Your task to perform on an android device: Search for pizza restaurants on Maps Image 0: 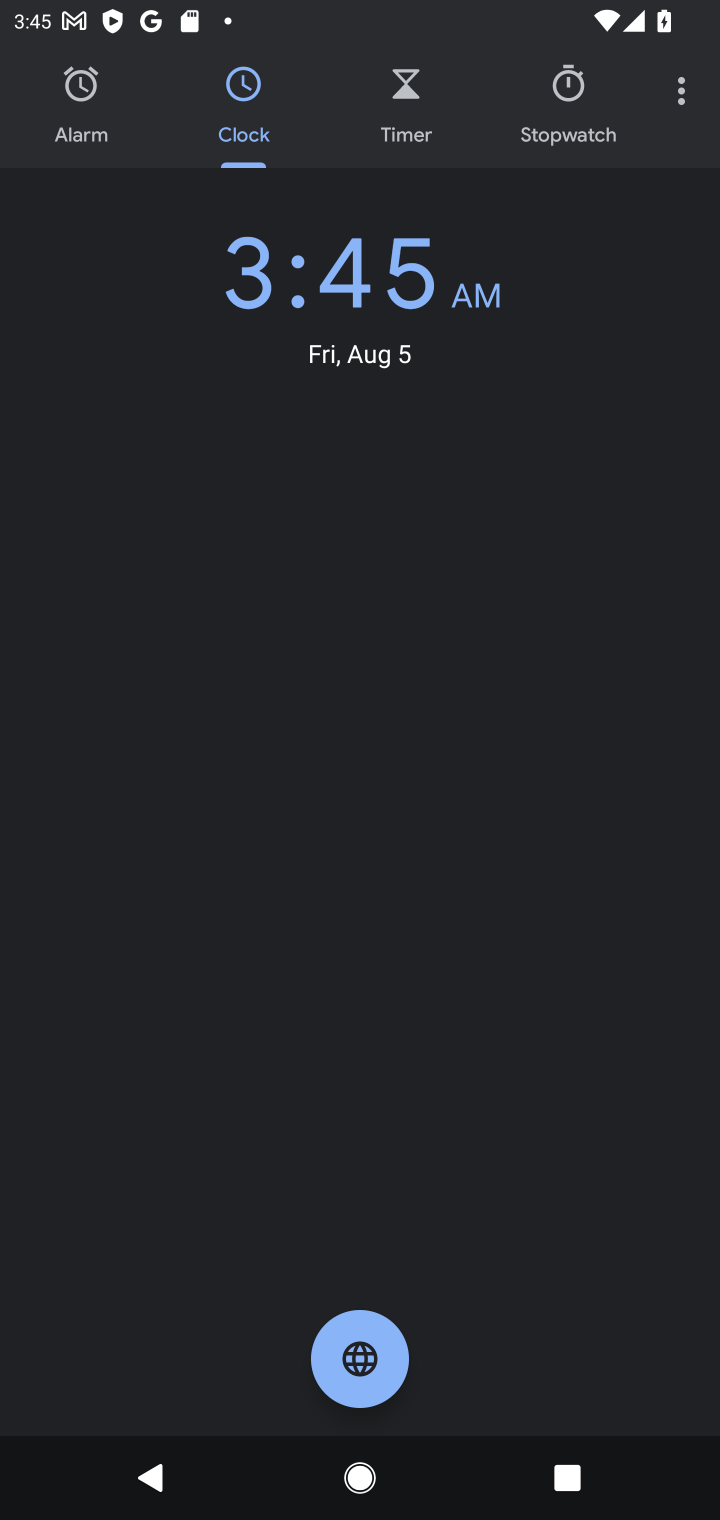
Step 0: press home button
Your task to perform on an android device: Search for pizza restaurants on Maps Image 1: 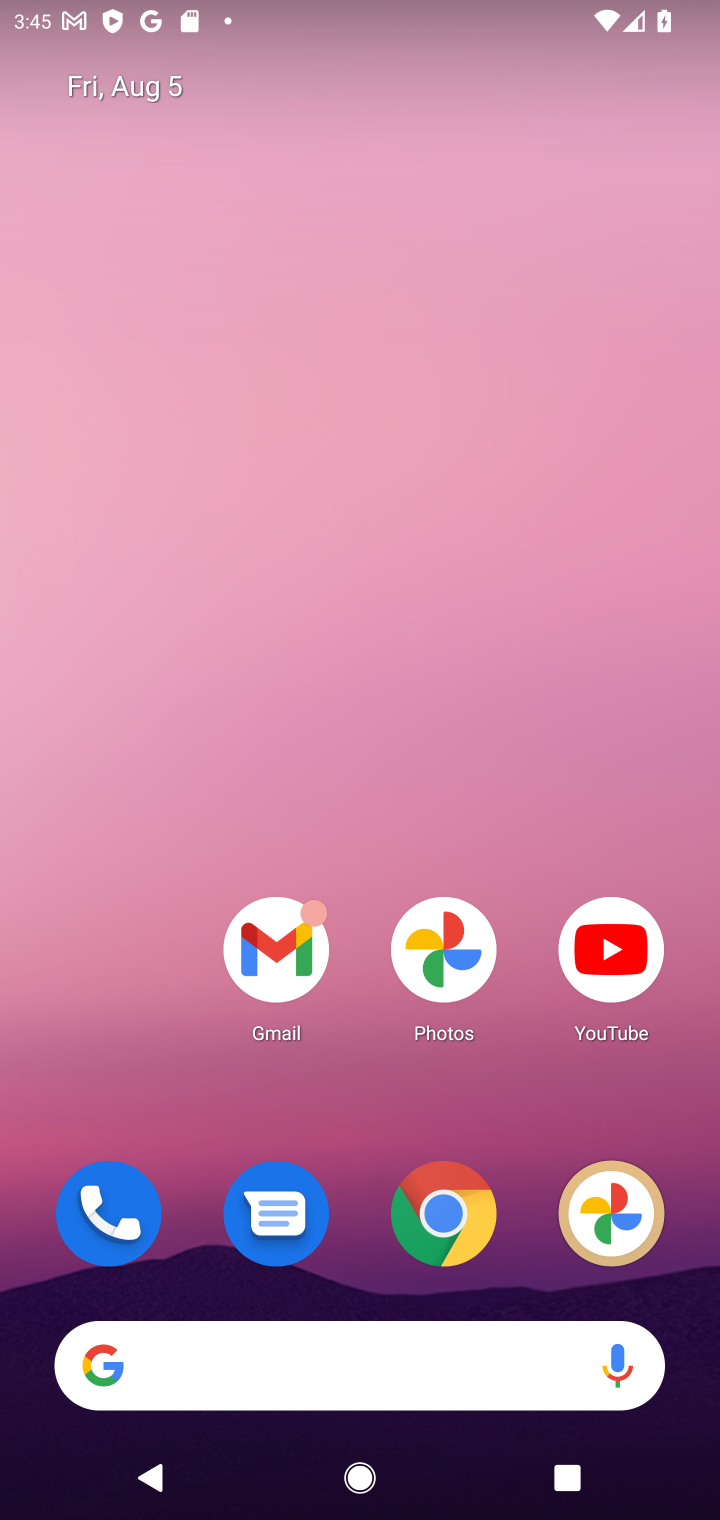
Step 1: click (593, 1199)
Your task to perform on an android device: Search for pizza restaurants on Maps Image 2: 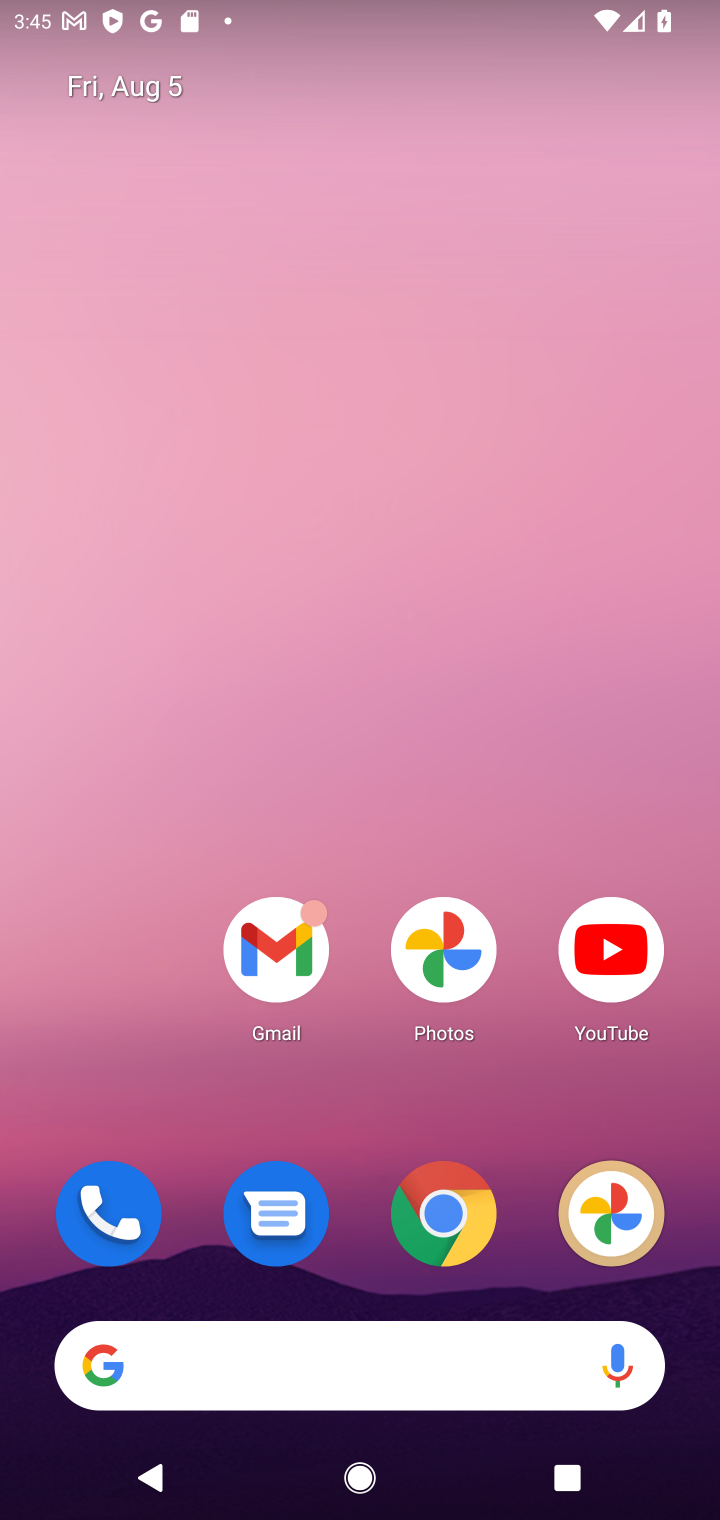
Step 2: task complete